Your task to perform on an android device: Open privacy settings Image 0: 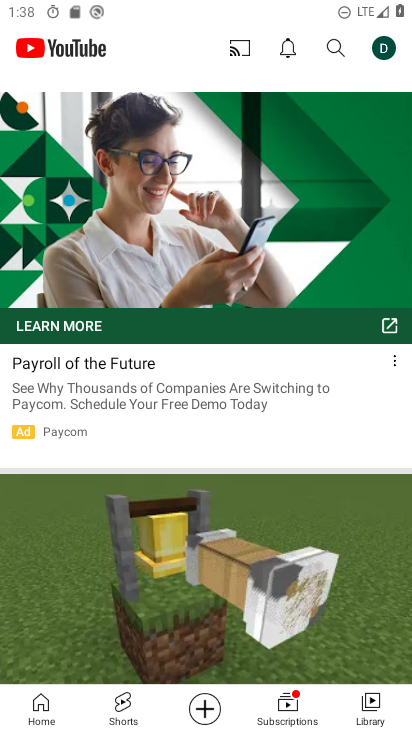
Step 0: press home button
Your task to perform on an android device: Open privacy settings Image 1: 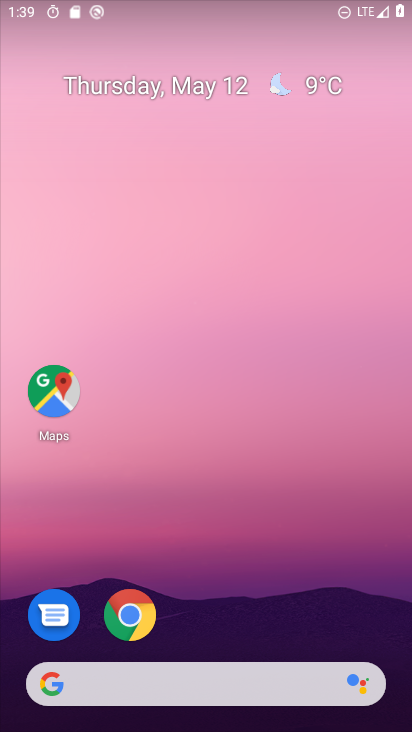
Step 1: drag from (341, 598) to (247, 114)
Your task to perform on an android device: Open privacy settings Image 2: 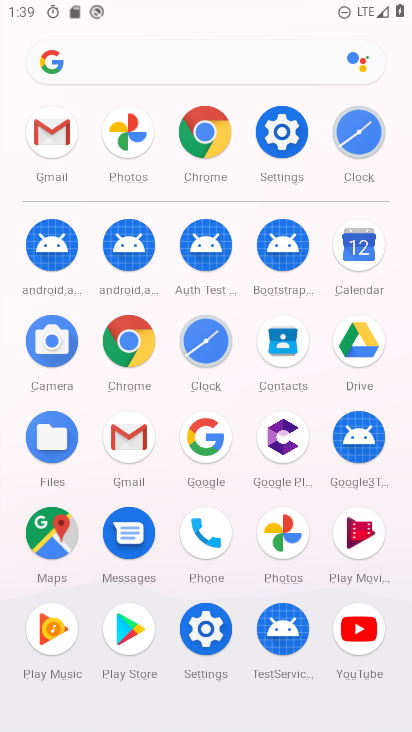
Step 2: click (284, 125)
Your task to perform on an android device: Open privacy settings Image 3: 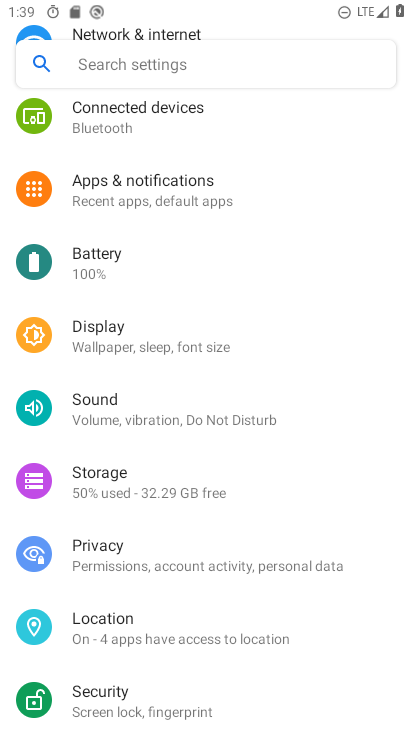
Step 3: drag from (201, 573) to (179, 198)
Your task to perform on an android device: Open privacy settings Image 4: 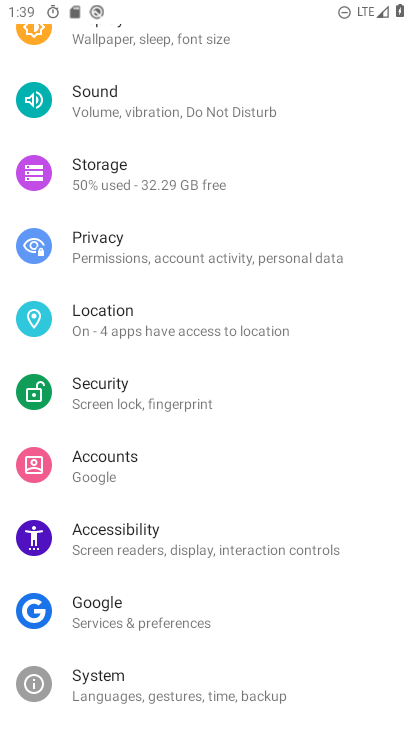
Step 4: click (115, 245)
Your task to perform on an android device: Open privacy settings Image 5: 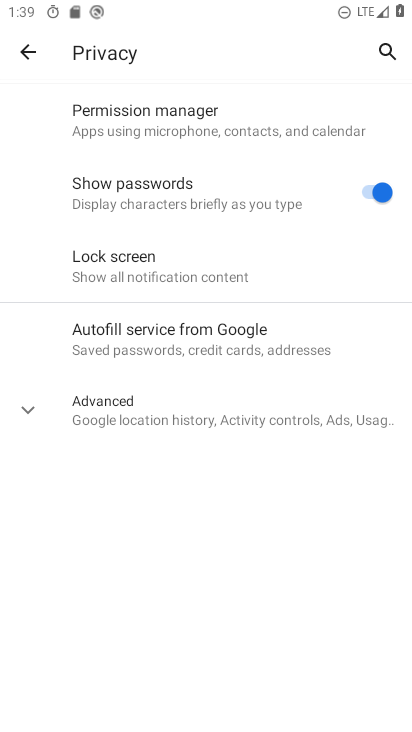
Step 5: task complete